Your task to perform on an android device: Do I have any events today? Image 0: 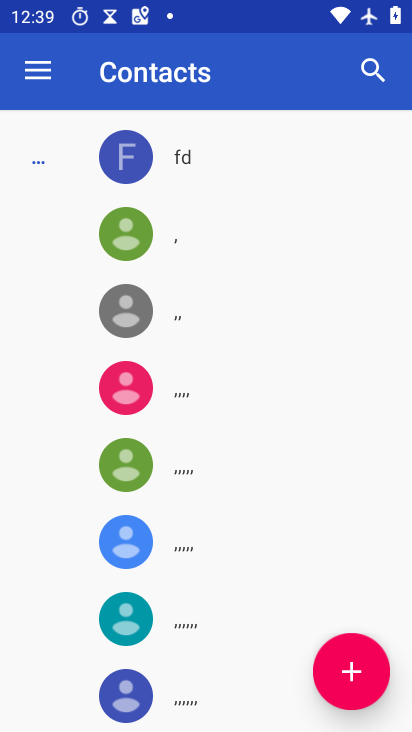
Step 0: press home button
Your task to perform on an android device: Do I have any events today? Image 1: 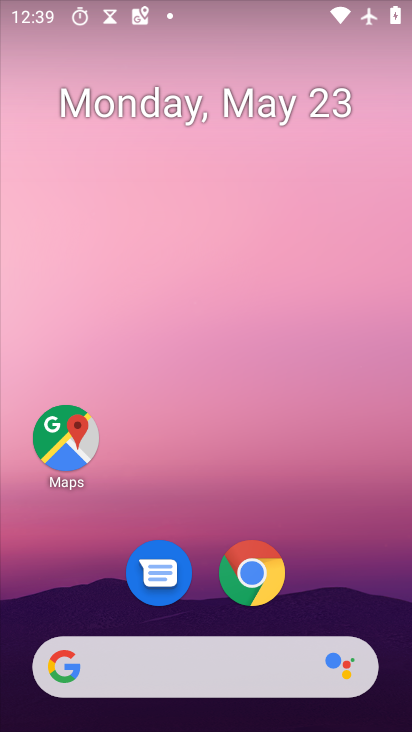
Step 1: drag from (170, 655) to (277, 193)
Your task to perform on an android device: Do I have any events today? Image 2: 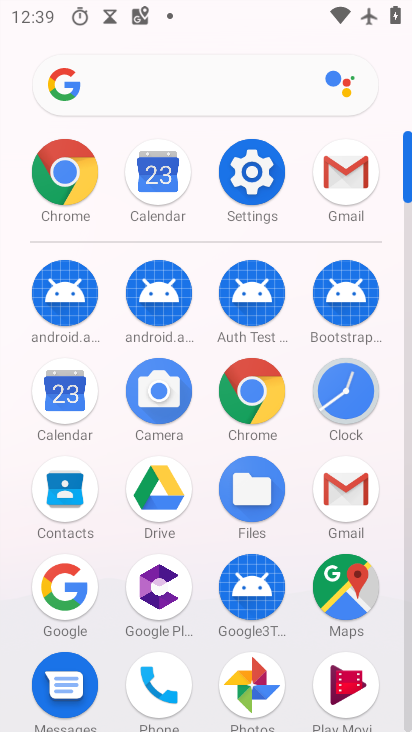
Step 2: click (170, 195)
Your task to perform on an android device: Do I have any events today? Image 3: 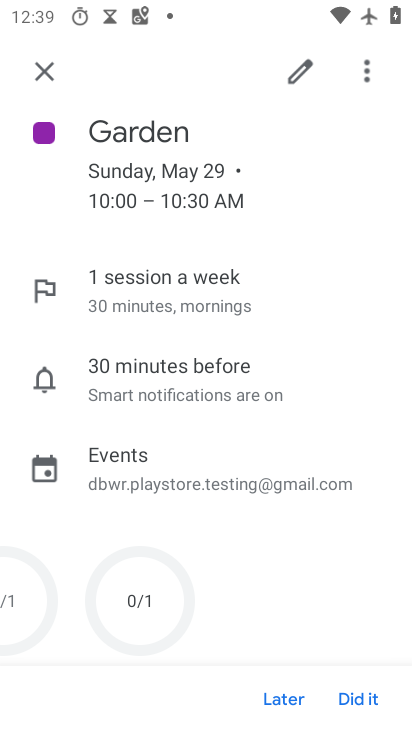
Step 3: click (41, 67)
Your task to perform on an android device: Do I have any events today? Image 4: 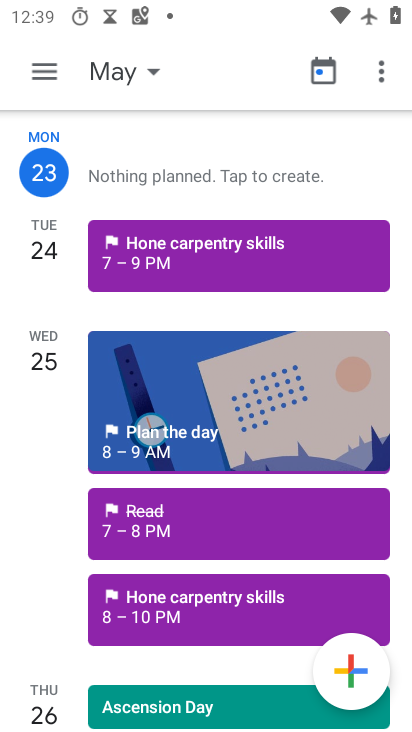
Step 4: click (107, 71)
Your task to perform on an android device: Do I have any events today? Image 5: 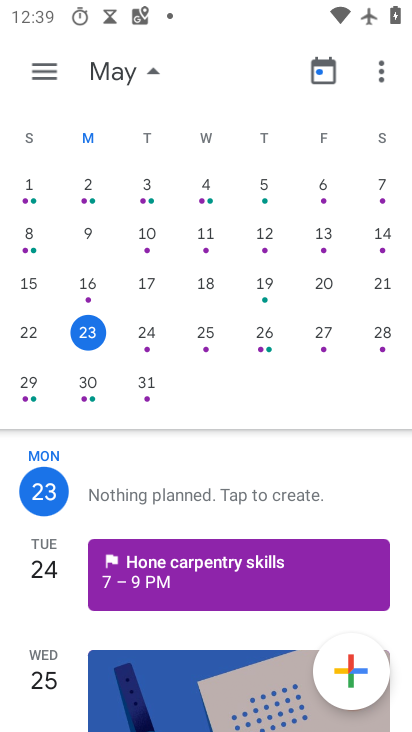
Step 5: click (87, 339)
Your task to perform on an android device: Do I have any events today? Image 6: 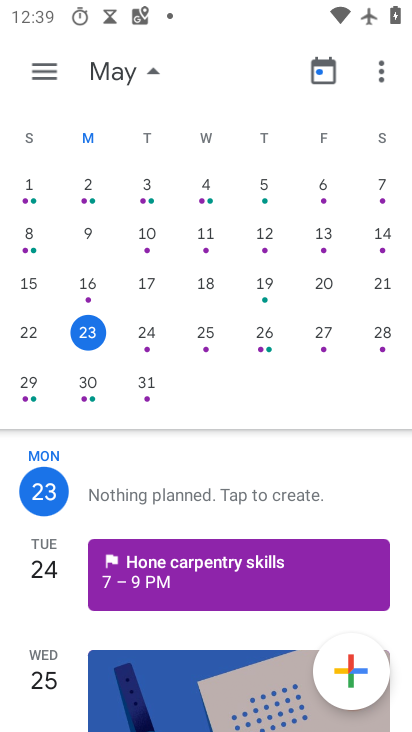
Step 6: click (42, 70)
Your task to perform on an android device: Do I have any events today? Image 7: 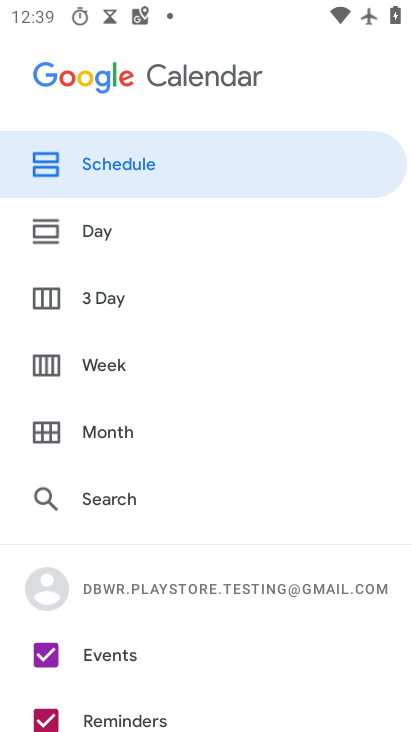
Step 7: click (105, 228)
Your task to perform on an android device: Do I have any events today? Image 8: 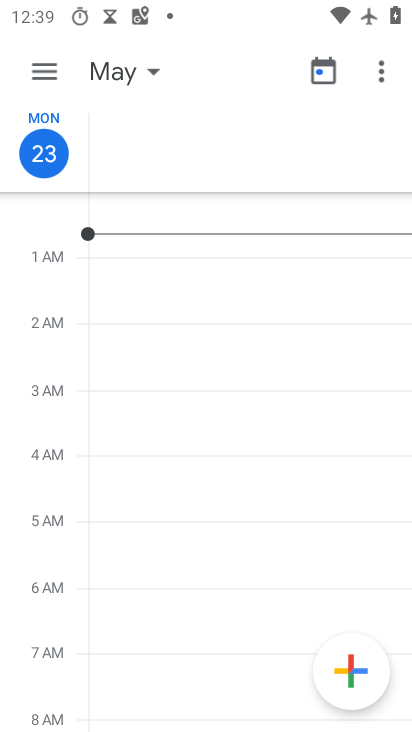
Step 8: click (53, 68)
Your task to perform on an android device: Do I have any events today? Image 9: 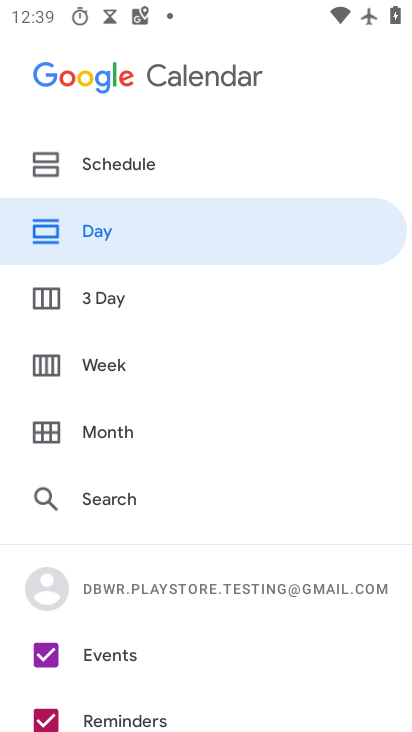
Step 9: click (67, 160)
Your task to perform on an android device: Do I have any events today? Image 10: 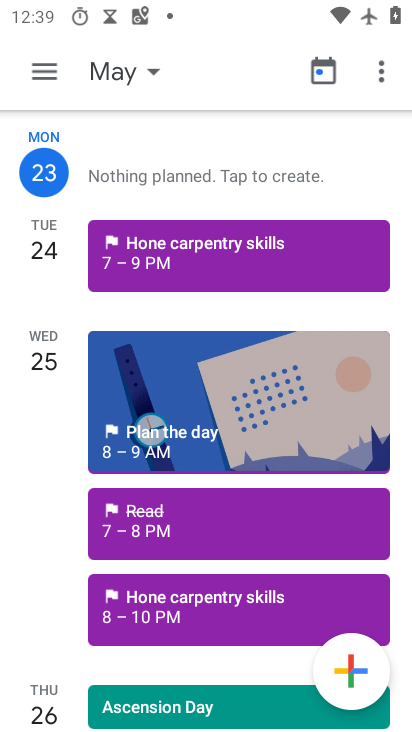
Step 10: task complete